Your task to perform on an android device: move an email to a new category in the gmail app Image 0: 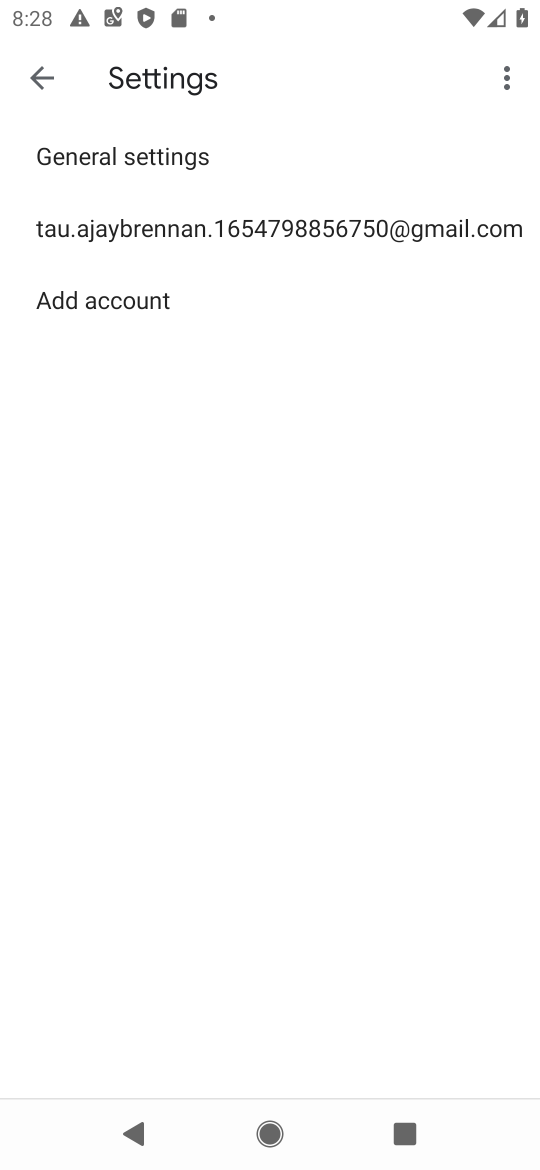
Step 0: press home button
Your task to perform on an android device: move an email to a new category in the gmail app Image 1: 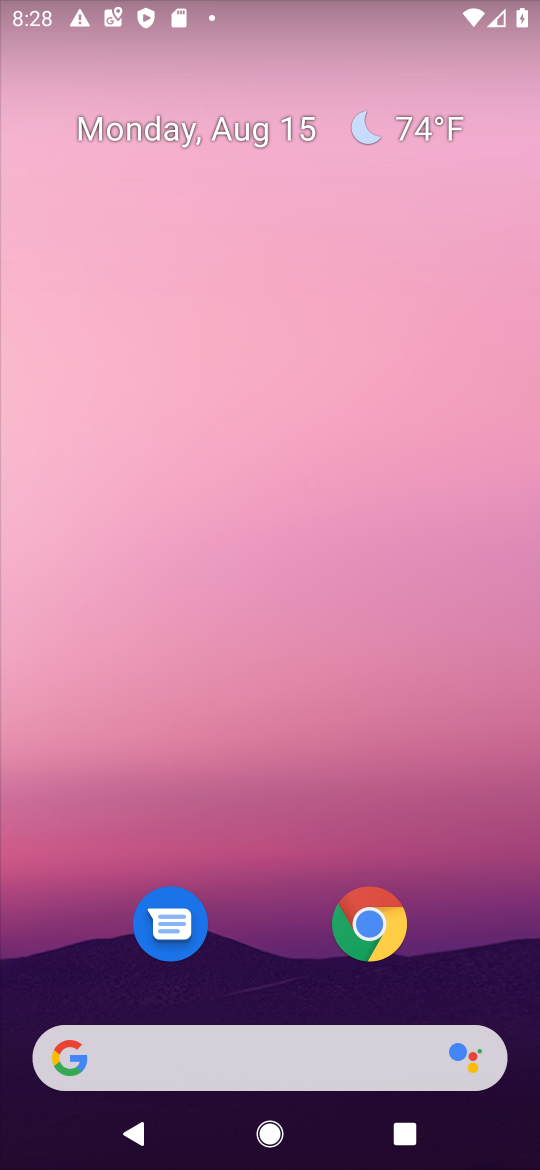
Step 1: drag from (509, 978) to (448, 190)
Your task to perform on an android device: move an email to a new category in the gmail app Image 2: 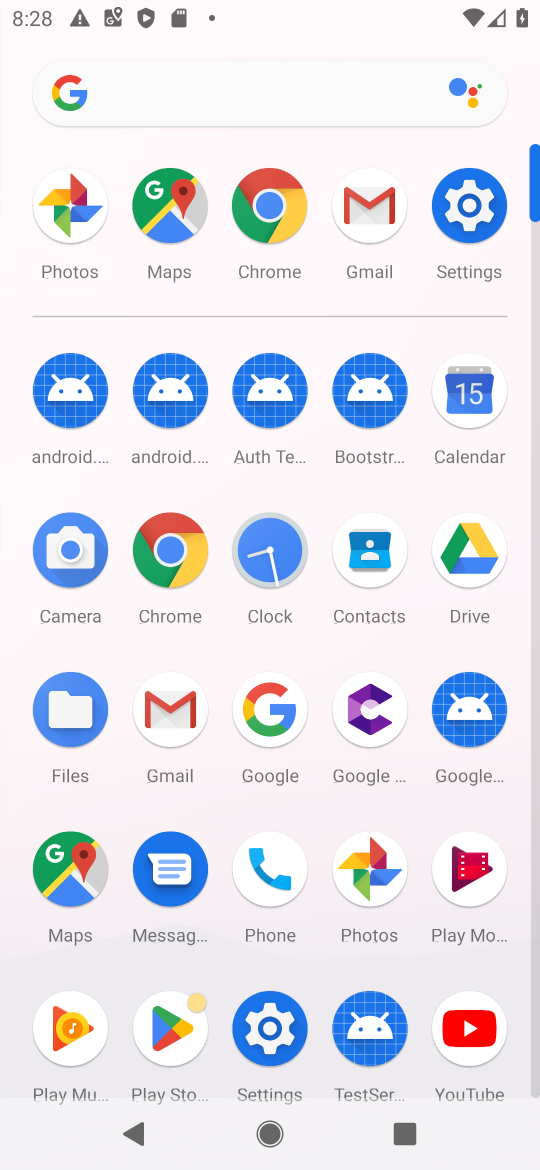
Step 2: click (167, 714)
Your task to perform on an android device: move an email to a new category in the gmail app Image 3: 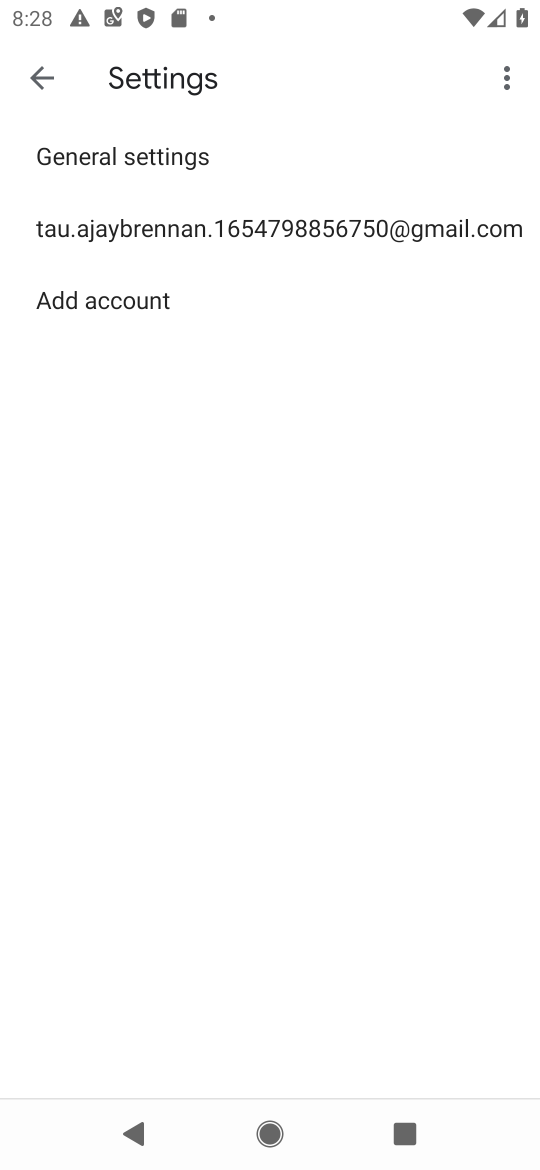
Step 3: press back button
Your task to perform on an android device: move an email to a new category in the gmail app Image 4: 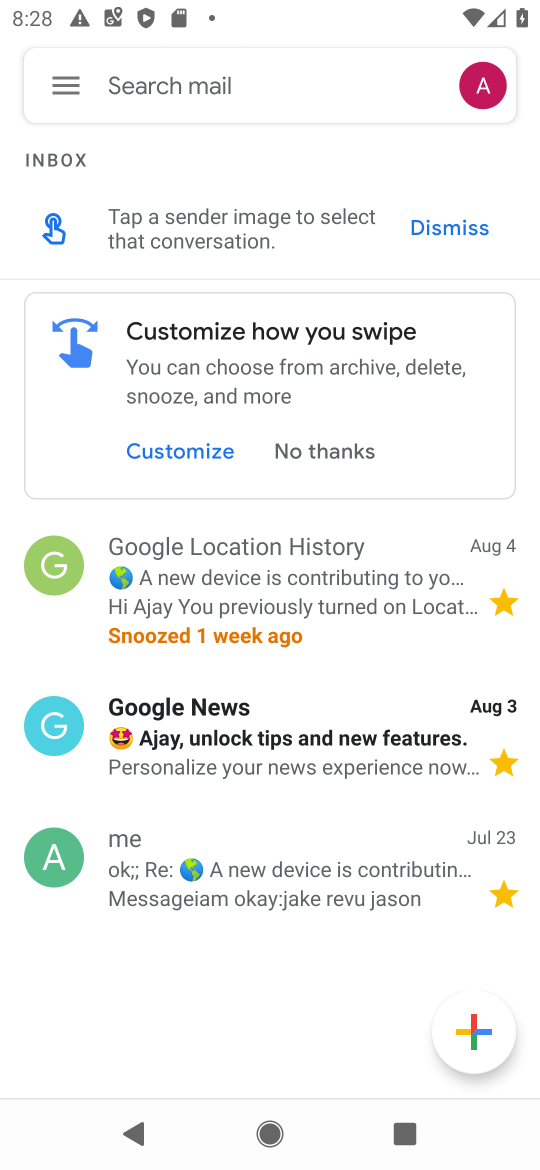
Step 4: click (267, 876)
Your task to perform on an android device: move an email to a new category in the gmail app Image 5: 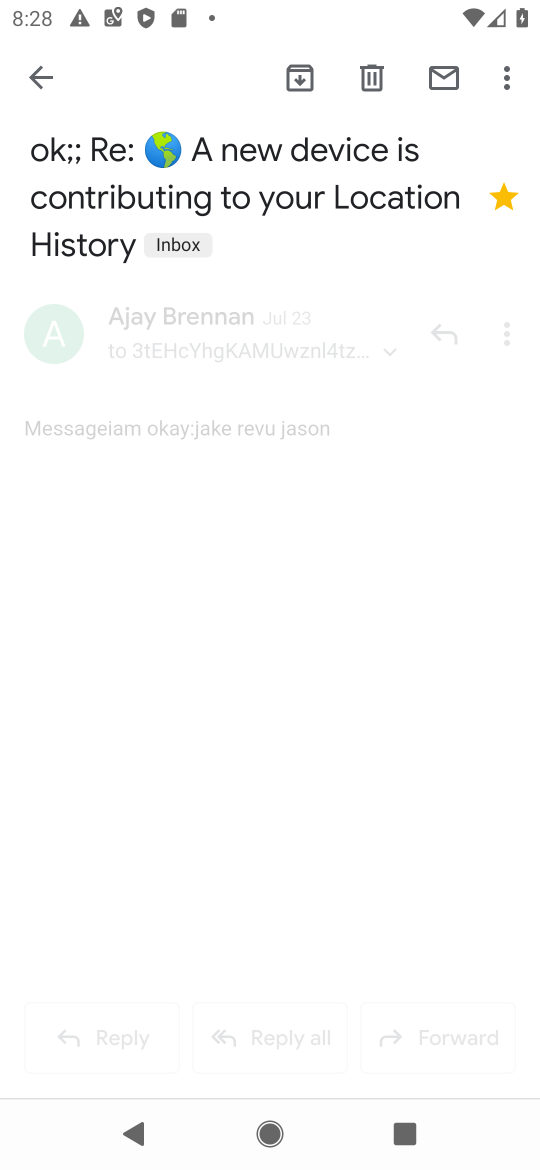
Step 5: click (511, 82)
Your task to perform on an android device: move an email to a new category in the gmail app Image 6: 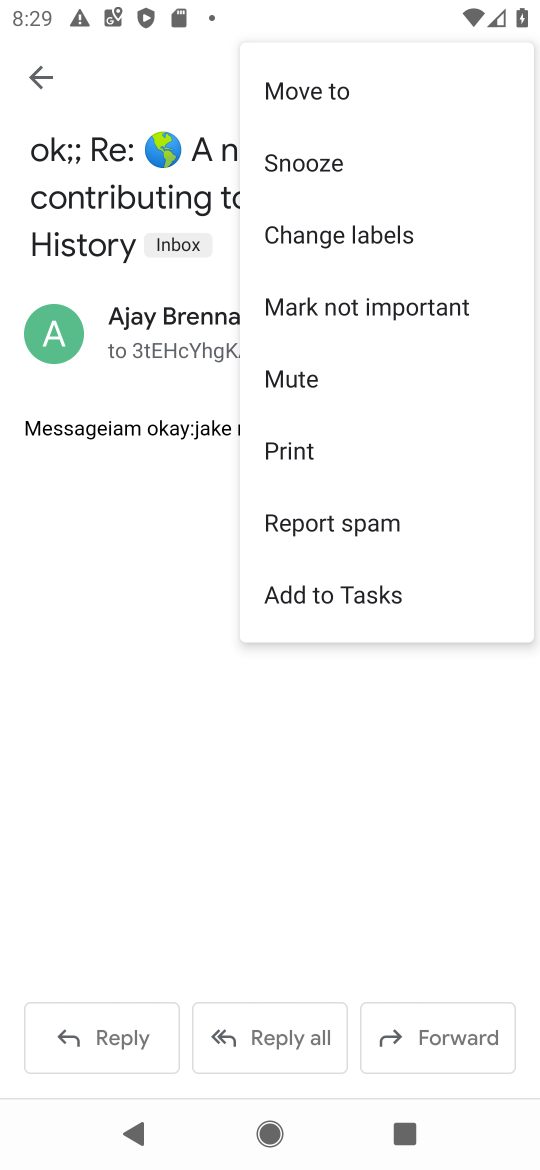
Step 6: click (302, 98)
Your task to perform on an android device: move an email to a new category in the gmail app Image 7: 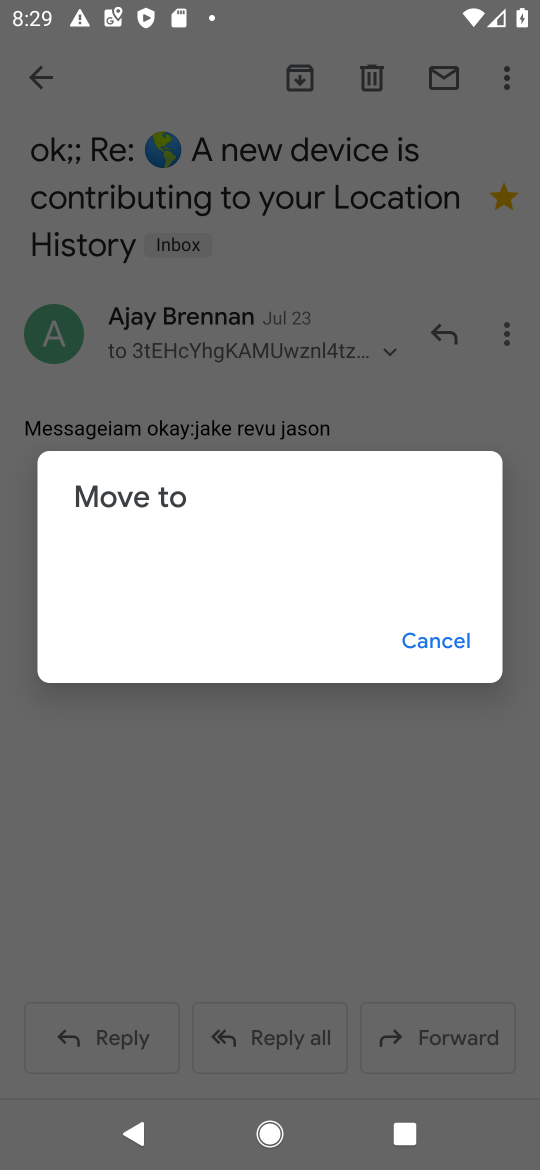
Step 7: task complete